Your task to perform on an android device: Check the weather Image 0: 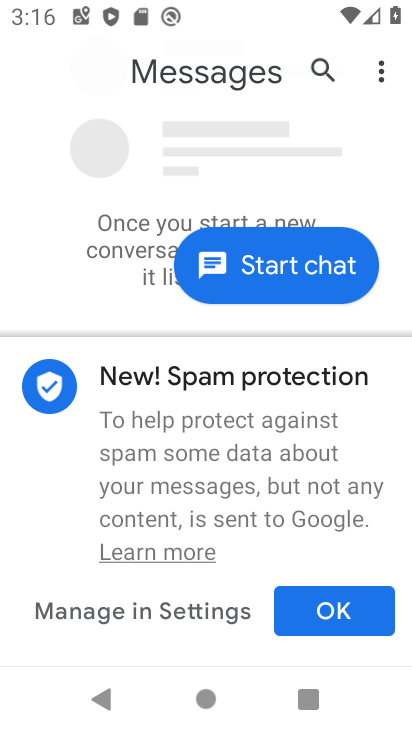
Step 0: press home button
Your task to perform on an android device: Check the weather Image 1: 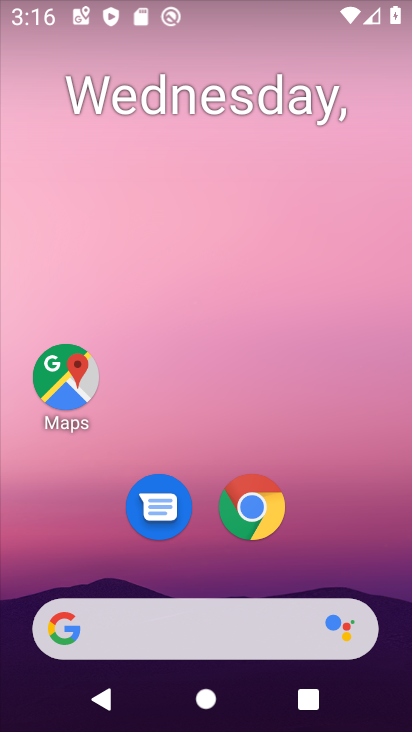
Step 1: click (111, 621)
Your task to perform on an android device: Check the weather Image 2: 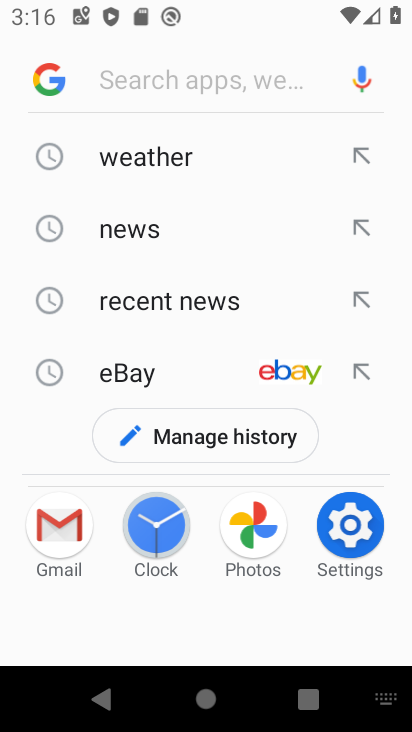
Step 2: click (226, 152)
Your task to perform on an android device: Check the weather Image 3: 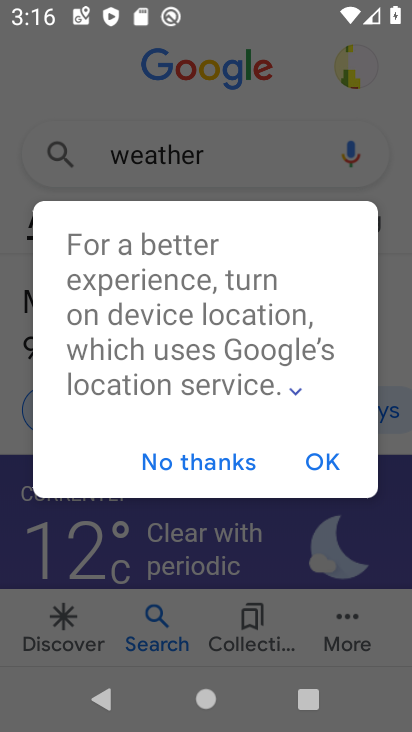
Step 3: click (230, 462)
Your task to perform on an android device: Check the weather Image 4: 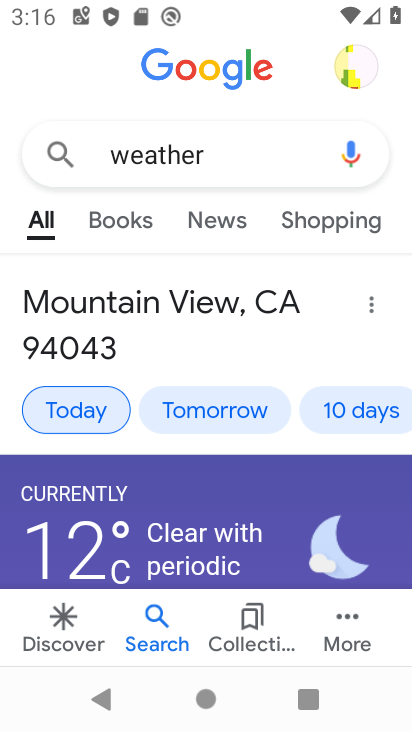
Step 4: task complete